Your task to perform on an android device: set the timer Image 0: 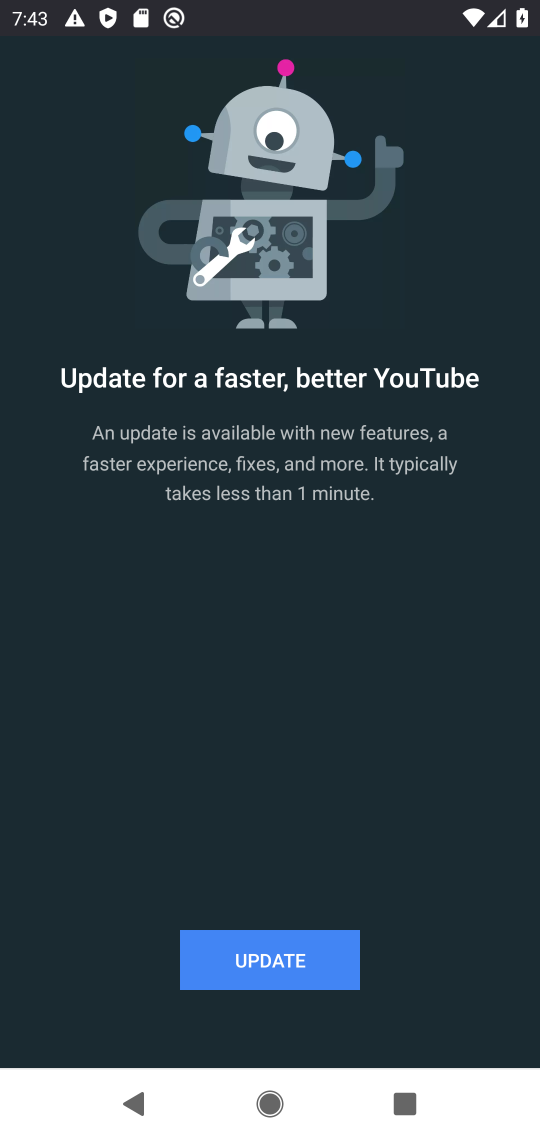
Step 0: press home button
Your task to perform on an android device: set the timer Image 1: 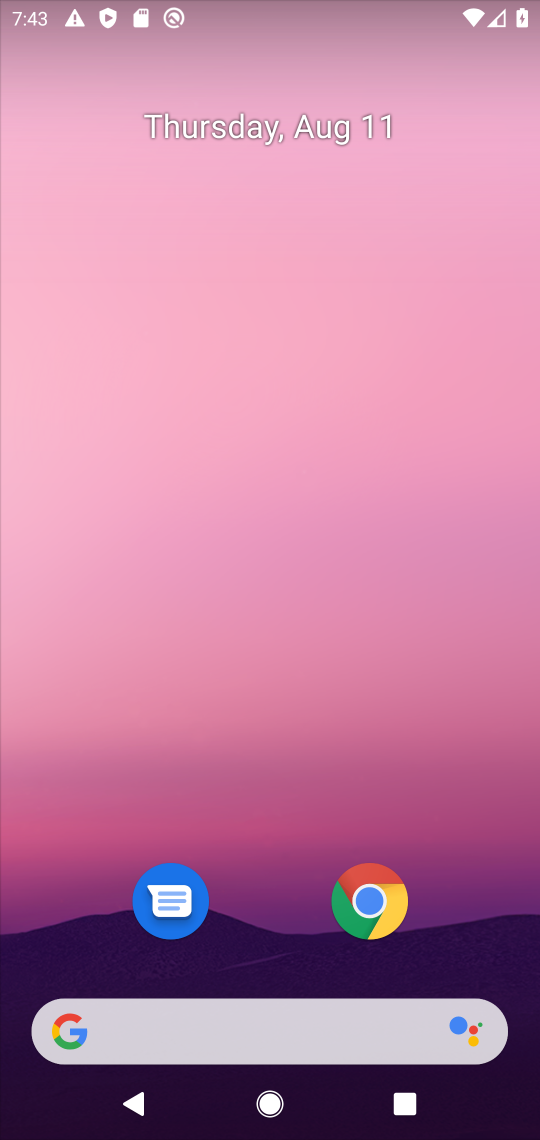
Step 1: drag from (457, 818) to (538, 140)
Your task to perform on an android device: set the timer Image 2: 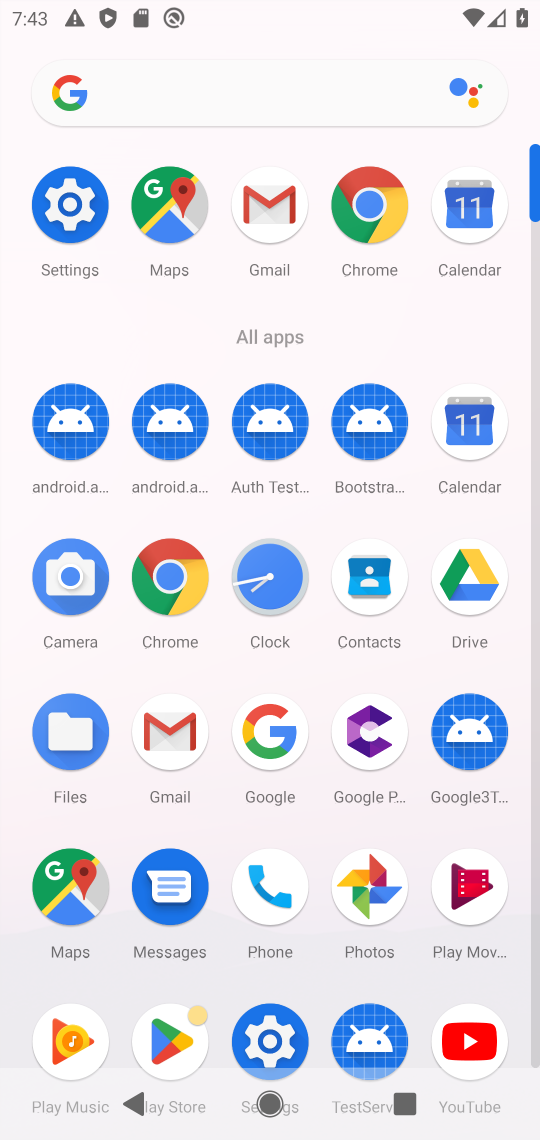
Step 2: click (280, 566)
Your task to perform on an android device: set the timer Image 3: 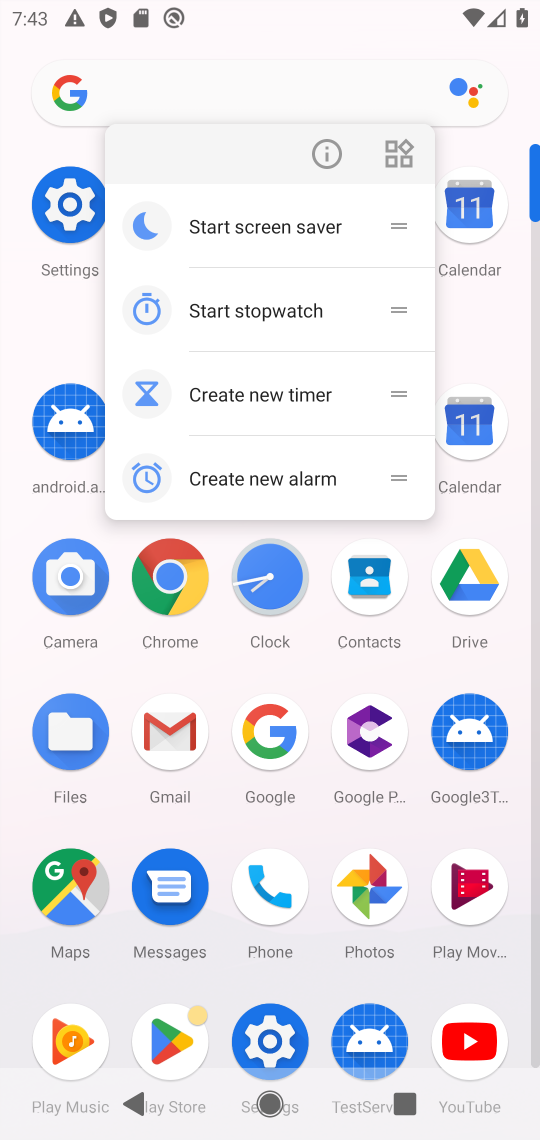
Step 3: click (266, 576)
Your task to perform on an android device: set the timer Image 4: 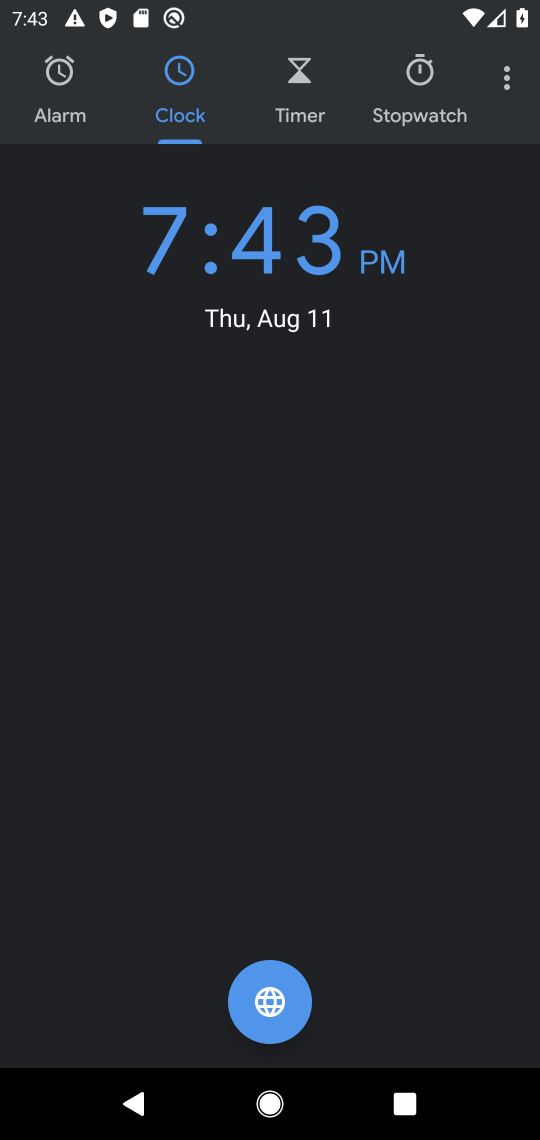
Step 4: click (316, 123)
Your task to perform on an android device: set the timer Image 5: 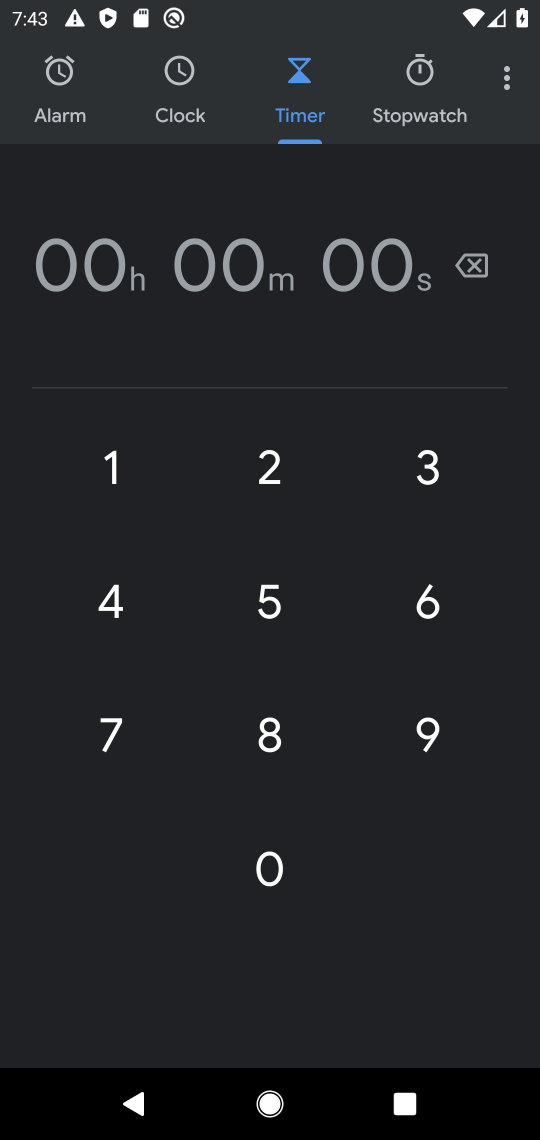
Step 5: click (308, 635)
Your task to perform on an android device: set the timer Image 6: 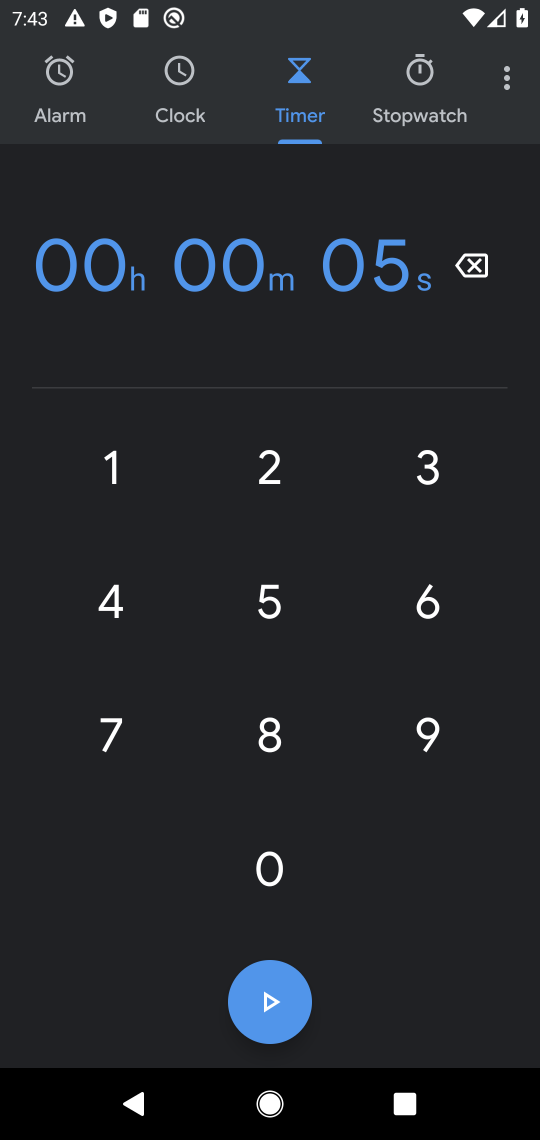
Step 6: task complete